Your task to perform on an android device: see tabs open on other devices in the chrome app Image 0: 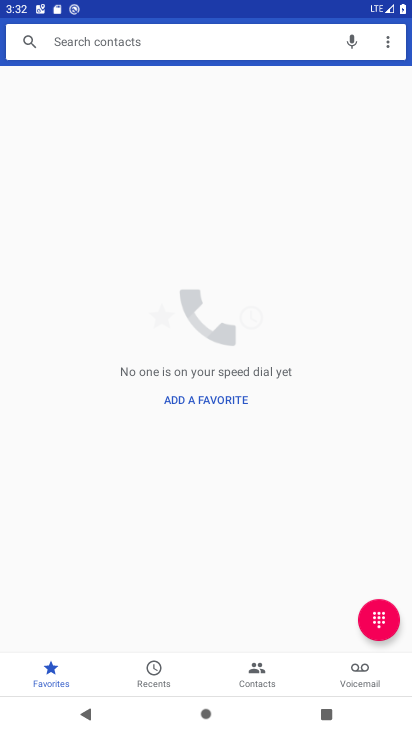
Step 0: press home button
Your task to perform on an android device: see tabs open on other devices in the chrome app Image 1: 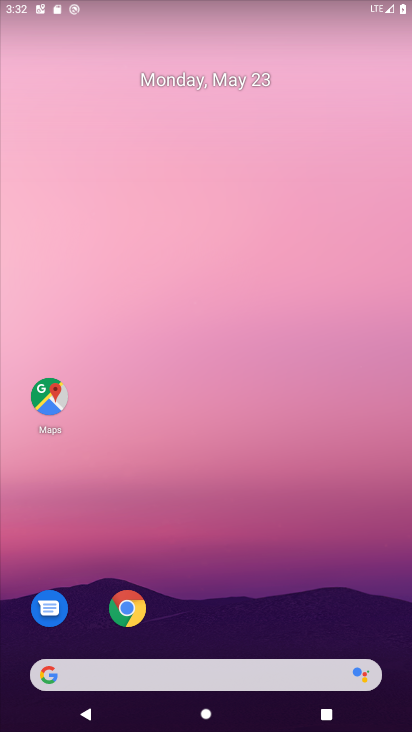
Step 1: click (134, 604)
Your task to perform on an android device: see tabs open on other devices in the chrome app Image 2: 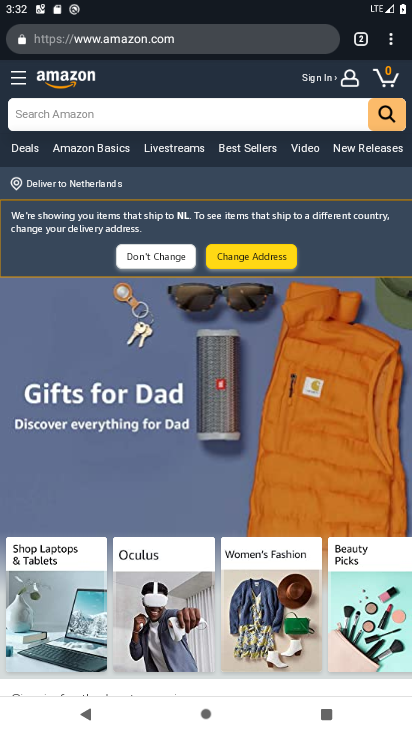
Step 2: click (391, 50)
Your task to perform on an android device: see tabs open on other devices in the chrome app Image 3: 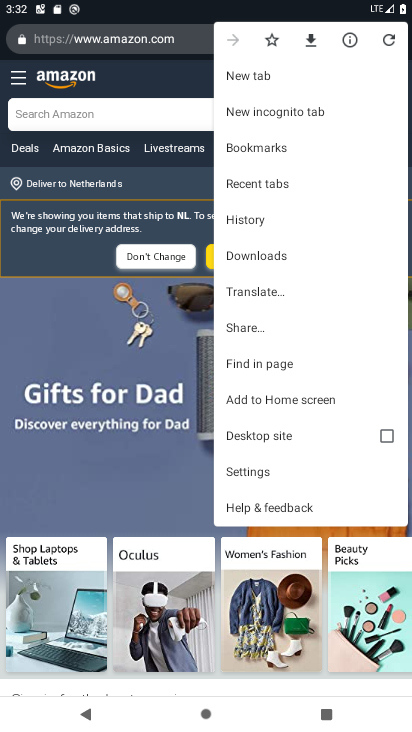
Step 3: click (308, 185)
Your task to perform on an android device: see tabs open on other devices in the chrome app Image 4: 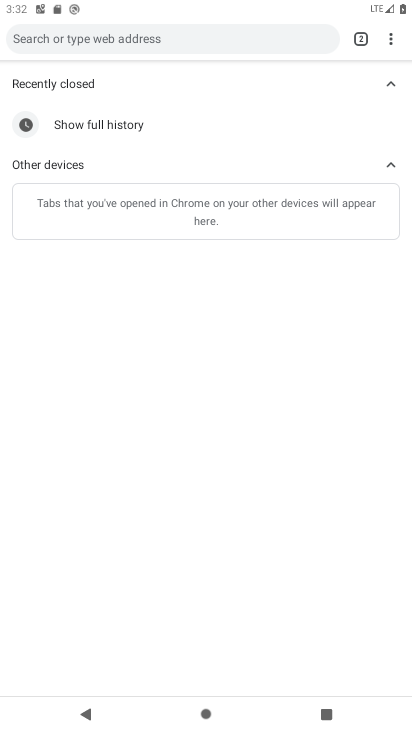
Step 4: task complete